Your task to perform on an android device: Go to Google Image 0: 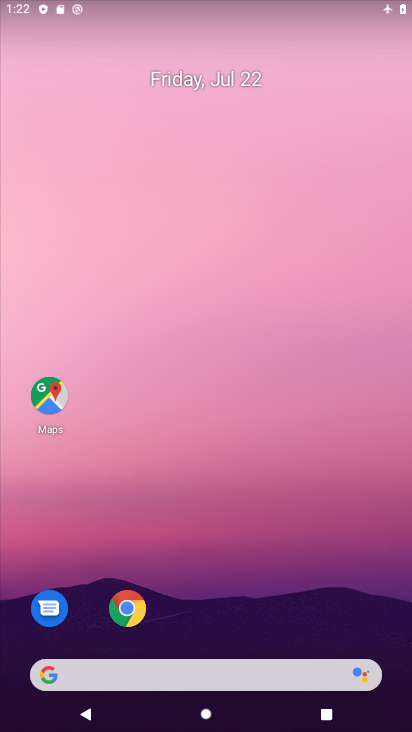
Step 0: drag from (246, 723) to (226, 73)
Your task to perform on an android device: Go to Google Image 1: 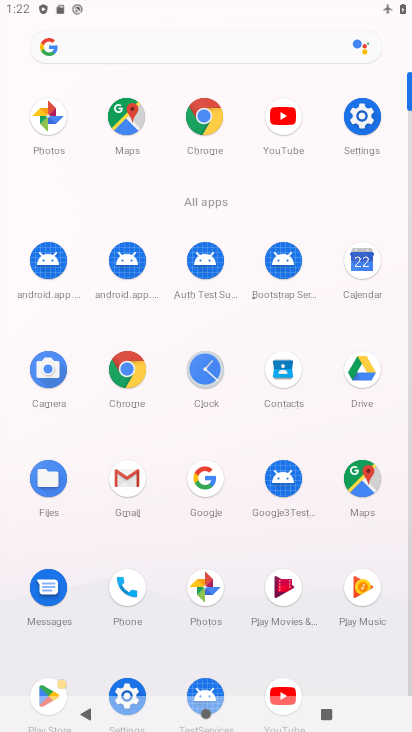
Step 1: click (202, 481)
Your task to perform on an android device: Go to Google Image 2: 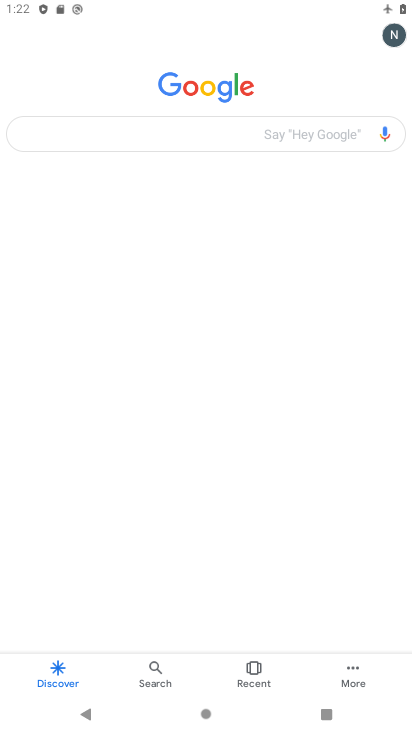
Step 2: task complete